Your task to perform on an android device: Go to network settings Image 0: 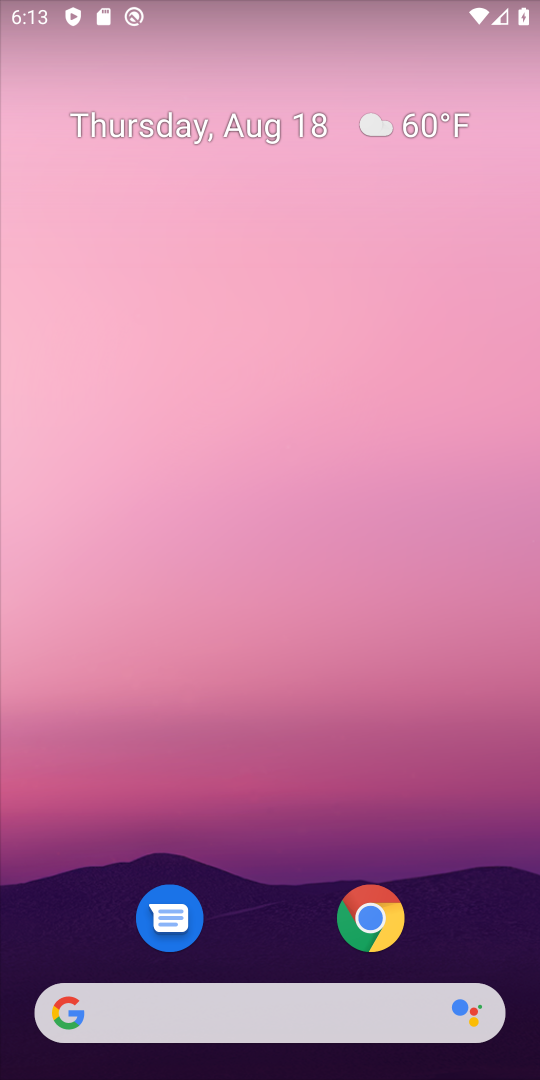
Step 0: press home button
Your task to perform on an android device: Go to network settings Image 1: 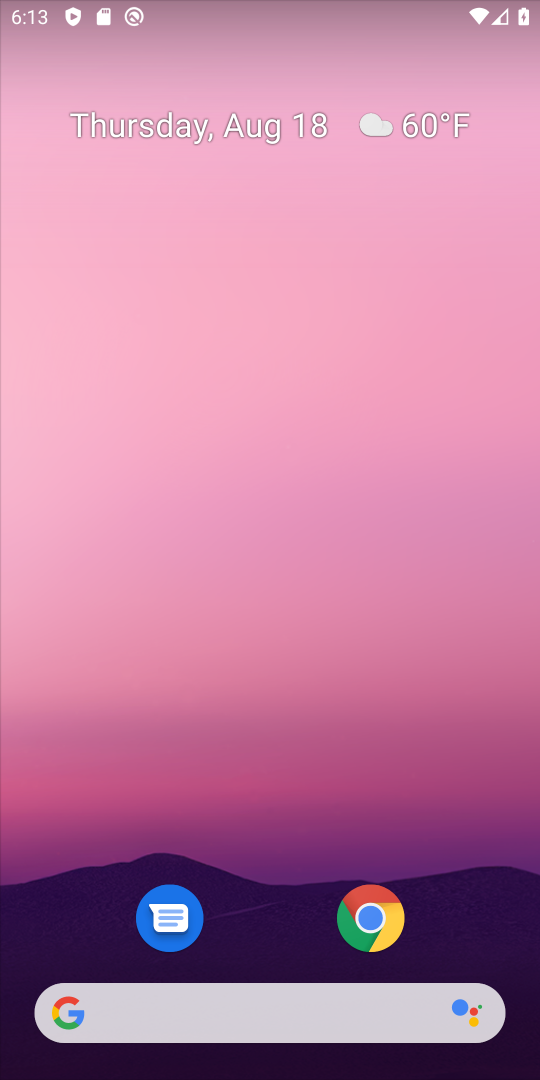
Step 1: drag from (300, 886) to (255, 121)
Your task to perform on an android device: Go to network settings Image 2: 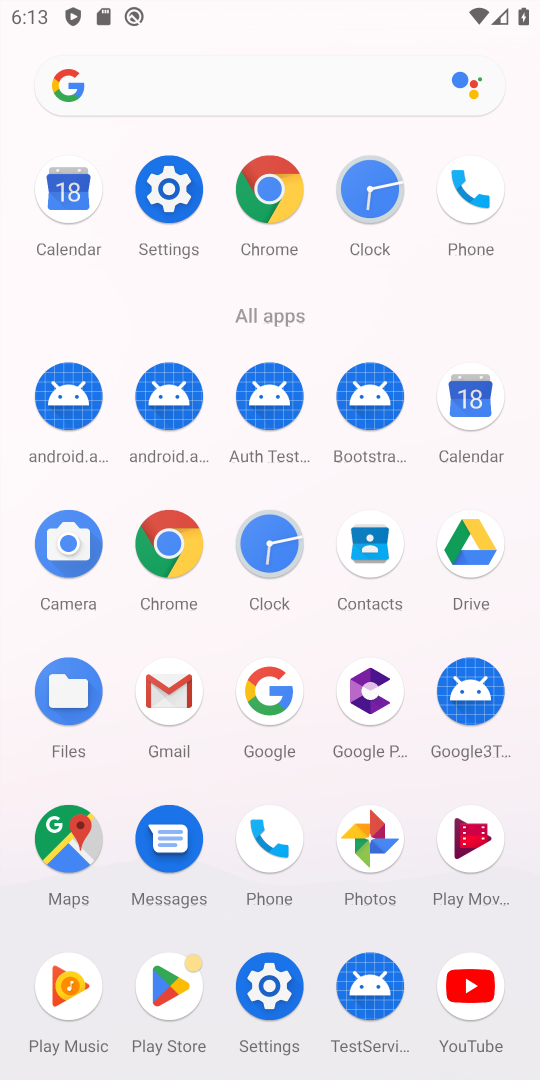
Step 2: click (184, 196)
Your task to perform on an android device: Go to network settings Image 3: 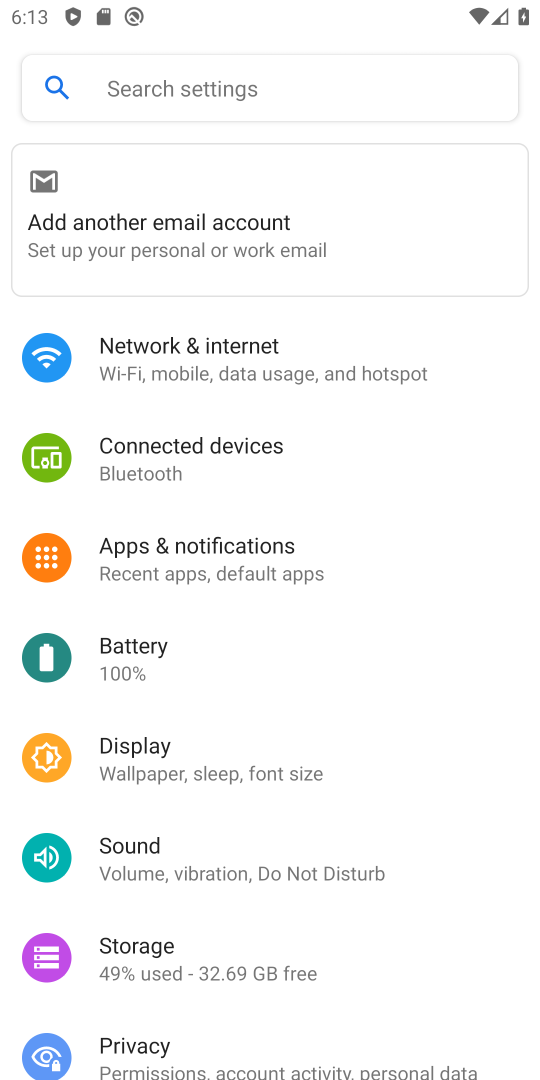
Step 3: click (162, 351)
Your task to perform on an android device: Go to network settings Image 4: 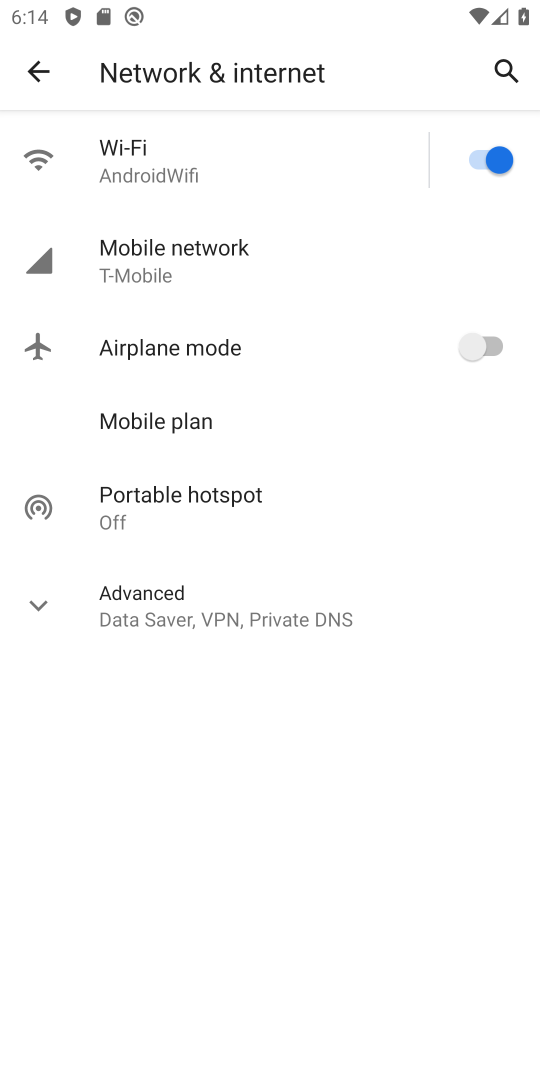
Step 4: task complete